Your task to perform on an android device: Go to ESPN.com Image 0: 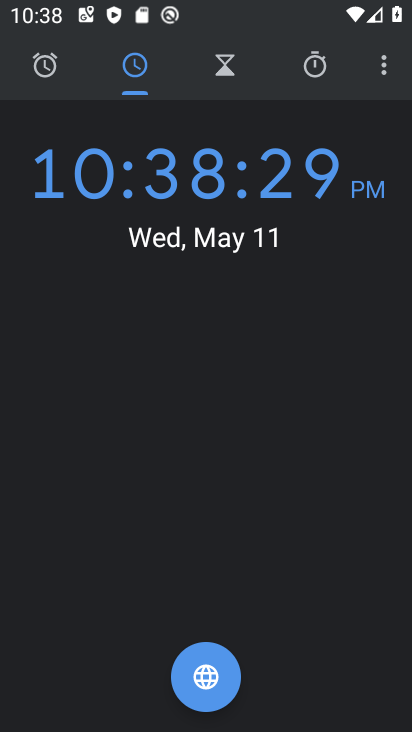
Step 0: press home button
Your task to perform on an android device: Go to ESPN.com Image 1: 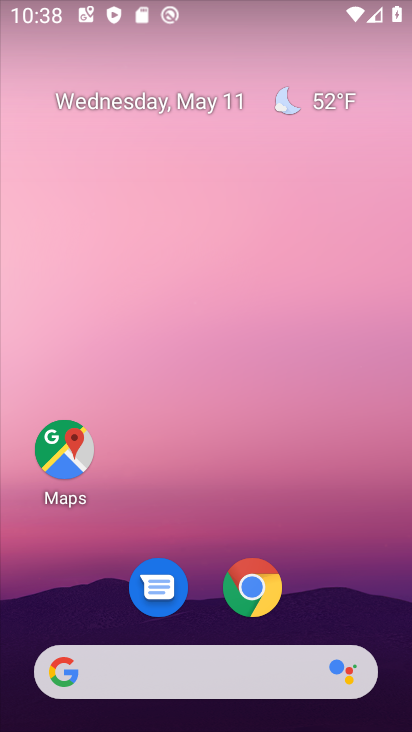
Step 1: drag from (288, 710) to (277, 223)
Your task to perform on an android device: Go to ESPN.com Image 2: 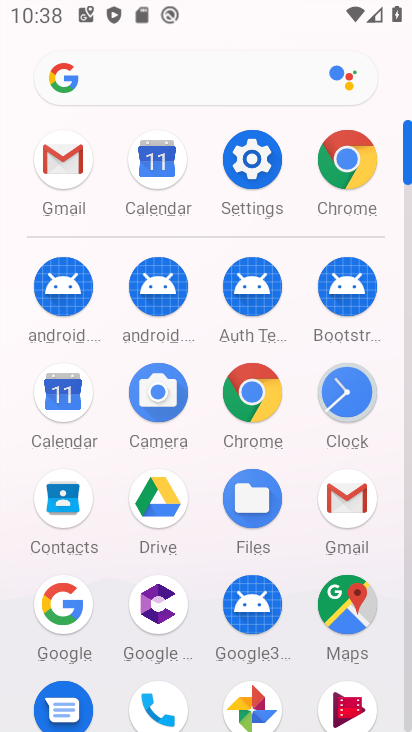
Step 2: click (336, 138)
Your task to perform on an android device: Go to ESPN.com Image 3: 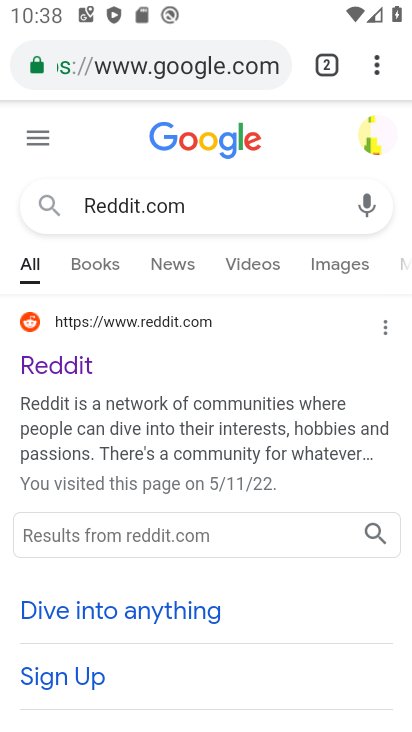
Step 3: click (316, 62)
Your task to perform on an android device: Go to ESPN.com Image 4: 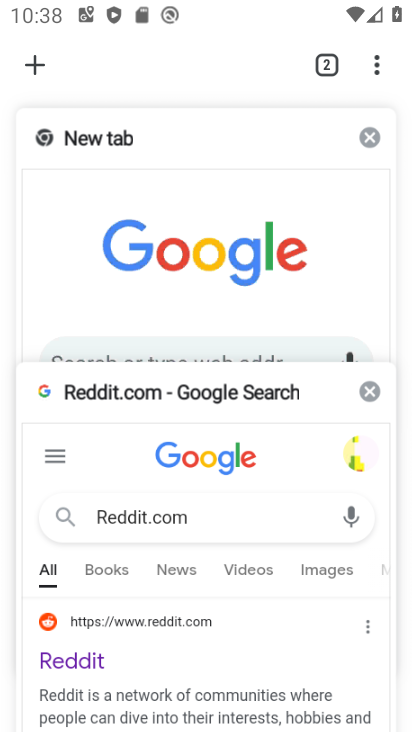
Step 4: click (26, 71)
Your task to perform on an android device: Go to ESPN.com Image 5: 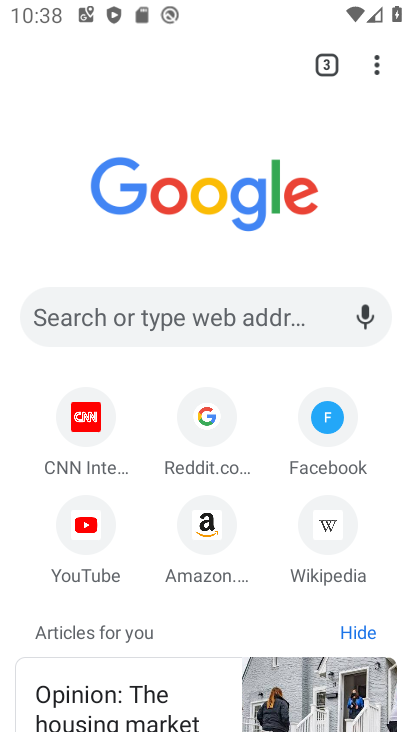
Step 5: click (157, 319)
Your task to perform on an android device: Go to ESPN.com Image 6: 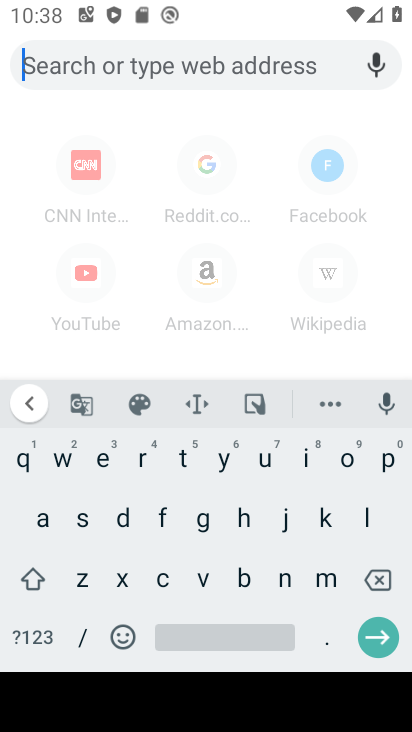
Step 6: click (103, 464)
Your task to perform on an android device: Go to ESPN.com Image 7: 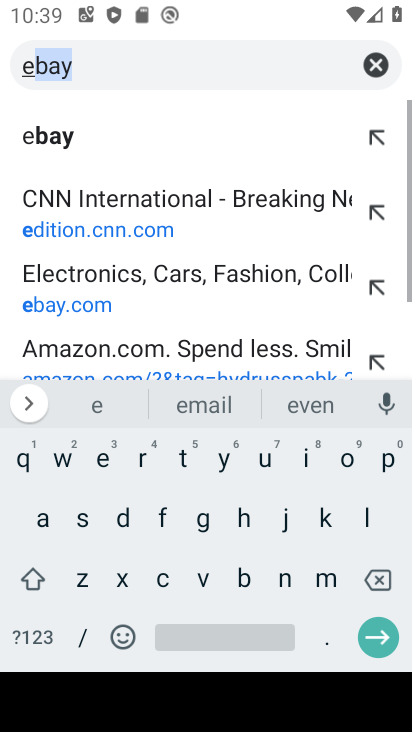
Step 7: click (84, 519)
Your task to perform on an android device: Go to ESPN.com Image 8: 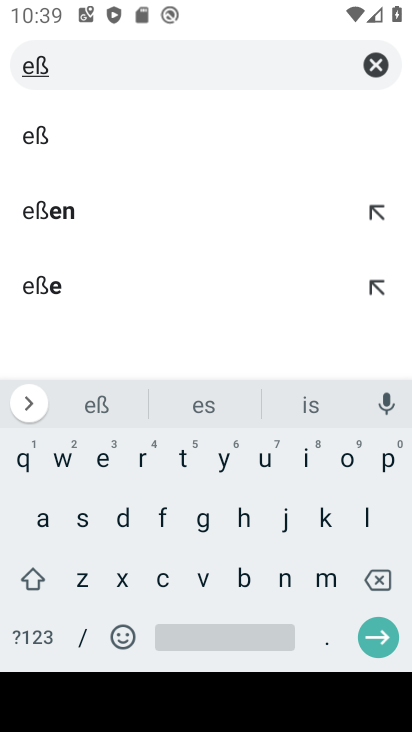
Step 8: click (385, 573)
Your task to perform on an android device: Go to ESPN.com Image 9: 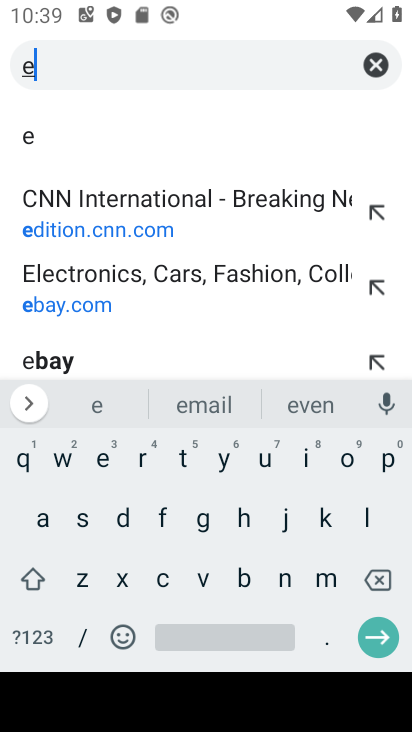
Step 9: click (87, 523)
Your task to perform on an android device: Go to ESPN.com Image 10: 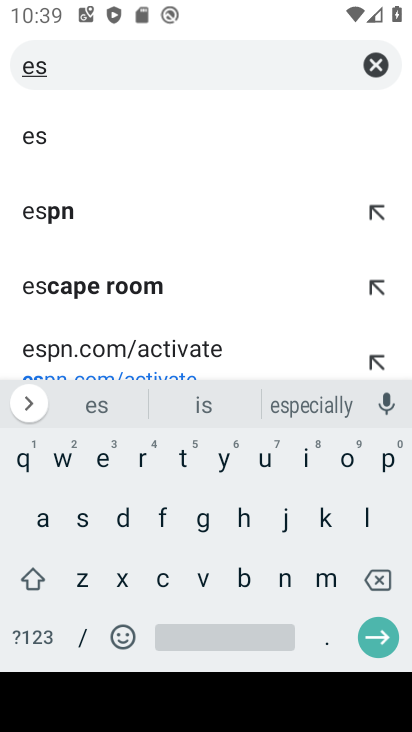
Step 10: click (63, 207)
Your task to perform on an android device: Go to ESPN.com Image 11: 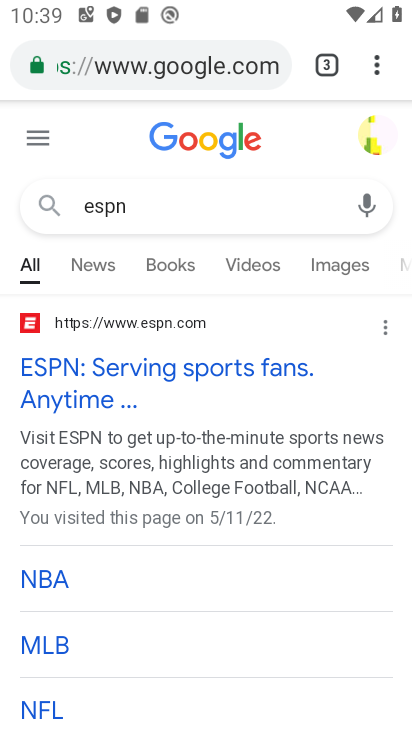
Step 11: click (71, 367)
Your task to perform on an android device: Go to ESPN.com Image 12: 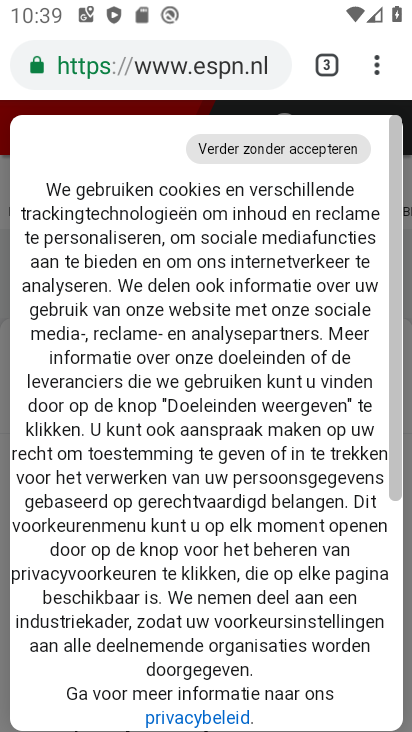
Step 12: drag from (169, 520) to (214, 233)
Your task to perform on an android device: Go to ESPN.com Image 13: 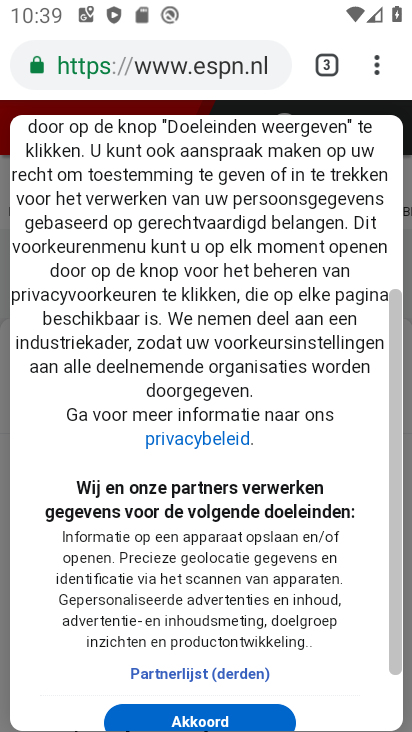
Step 13: drag from (173, 643) to (200, 551)
Your task to perform on an android device: Go to ESPN.com Image 14: 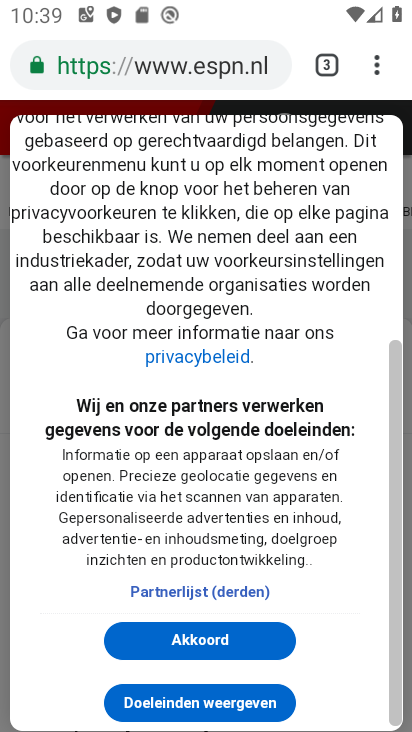
Step 14: click (185, 638)
Your task to perform on an android device: Go to ESPN.com Image 15: 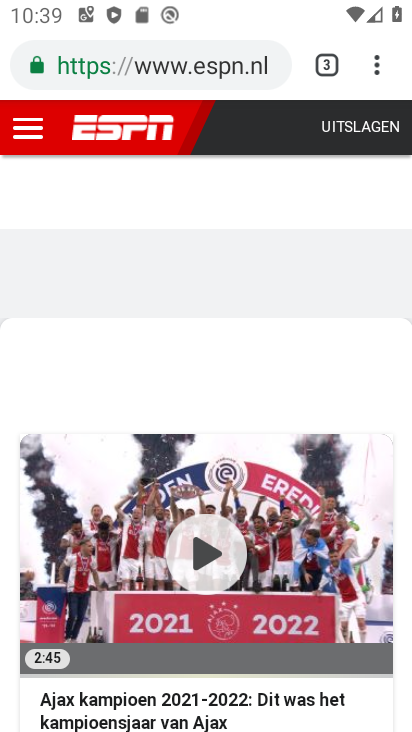
Step 15: task complete